Your task to perform on an android device: Show me popular videos on Youtube Image 0: 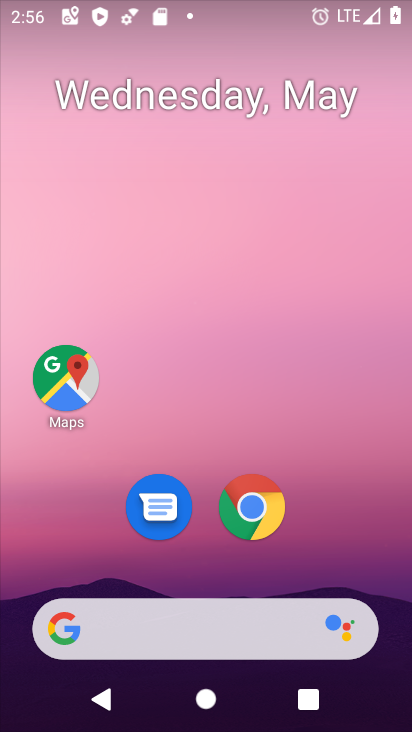
Step 0: drag from (319, 564) to (246, 78)
Your task to perform on an android device: Show me popular videos on Youtube Image 1: 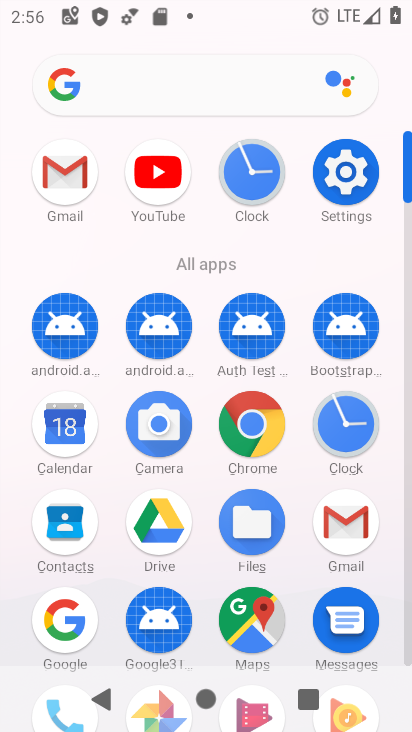
Step 1: drag from (193, 472) to (232, 234)
Your task to perform on an android device: Show me popular videos on Youtube Image 2: 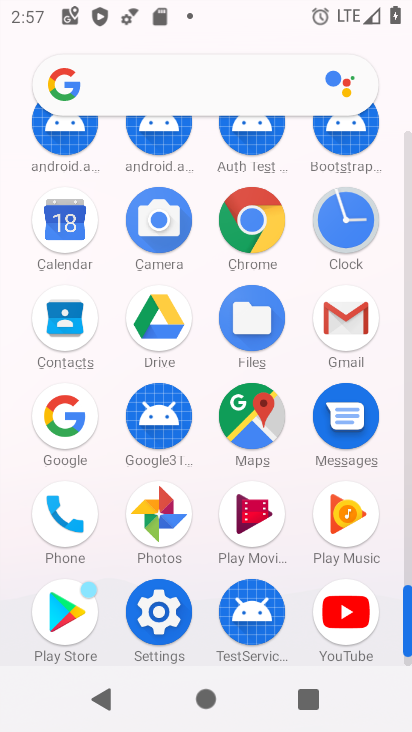
Step 2: click (343, 615)
Your task to perform on an android device: Show me popular videos on Youtube Image 3: 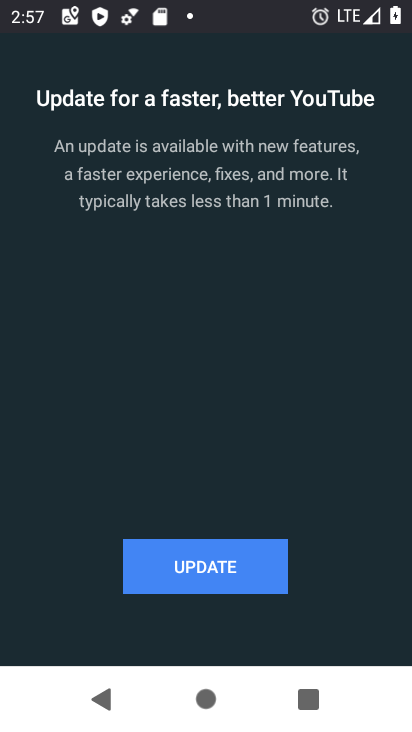
Step 3: click (204, 567)
Your task to perform on an android device: Show me popular videos on Youtube Image 4: 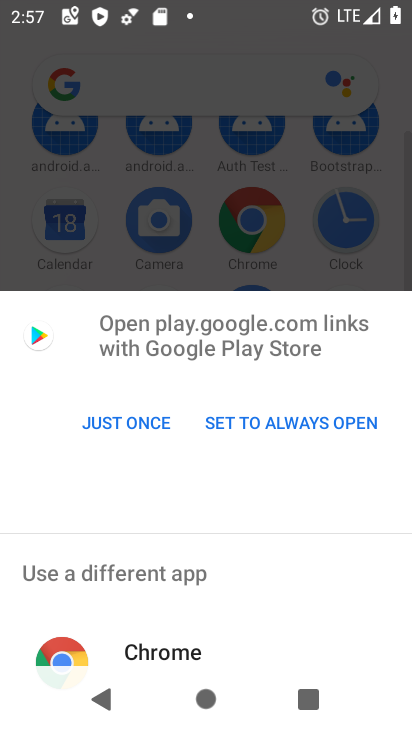
Step 4: click (144, 407)
Your task to perform on an android device: Show me popular videos on Youtube Image 5: 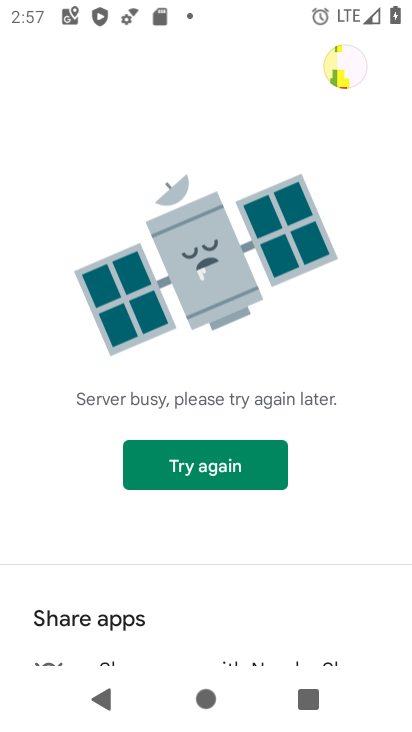
Step 5: click (201, 479)
Your task to perform on an android device: Show me popular videos on Youtube Image 6: 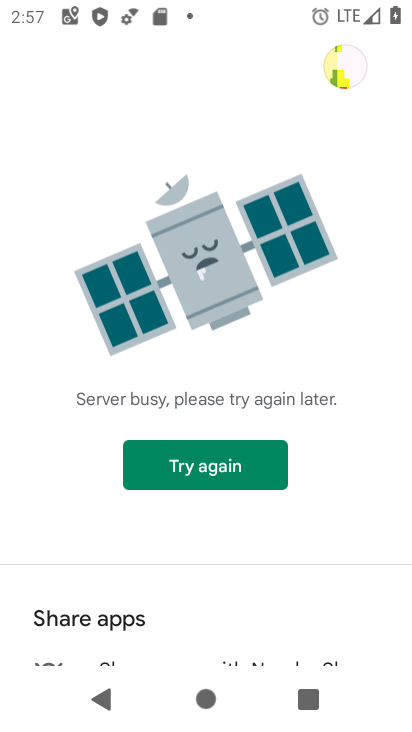
Step 6: task complete